Your task to perform on an android device: Open CNN.com Image 0: 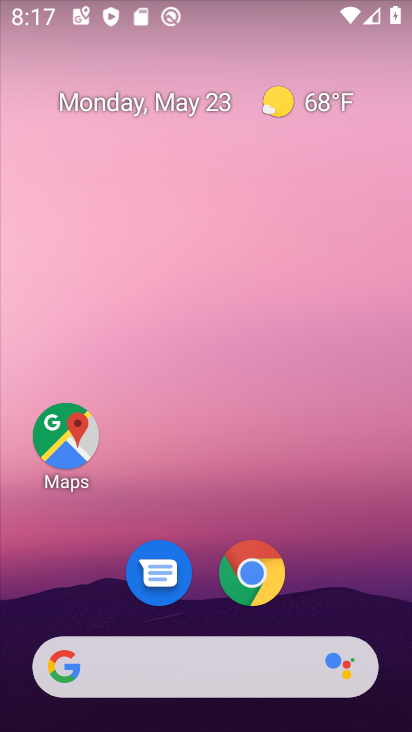
Step 0: drag from (214, 608) to (321, 1)
Your task to perform on an android device: Open CNN.com Image 1: 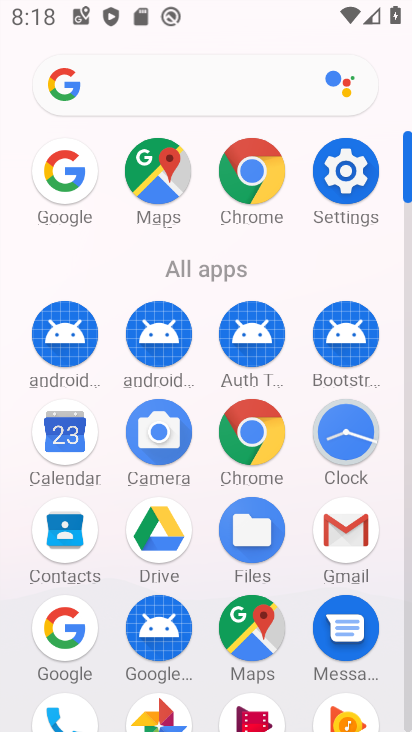
Step 1: click (255, 448)
Your task to perform on an android device: Open CNN.com Image 2: 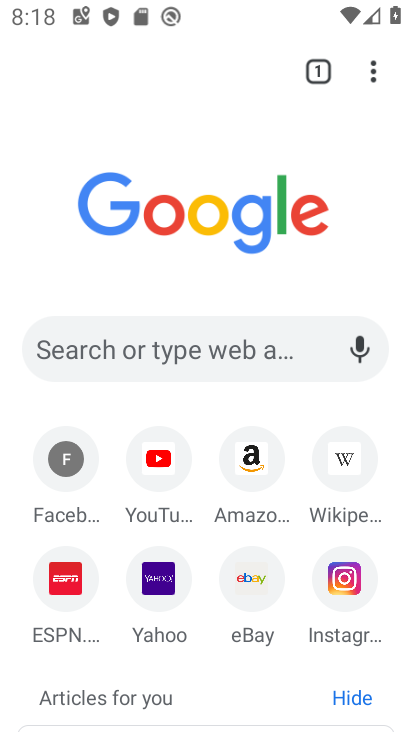
Step 2: click (179, 350)
Your task to perform on an android device: Open CNN.com Image 3: 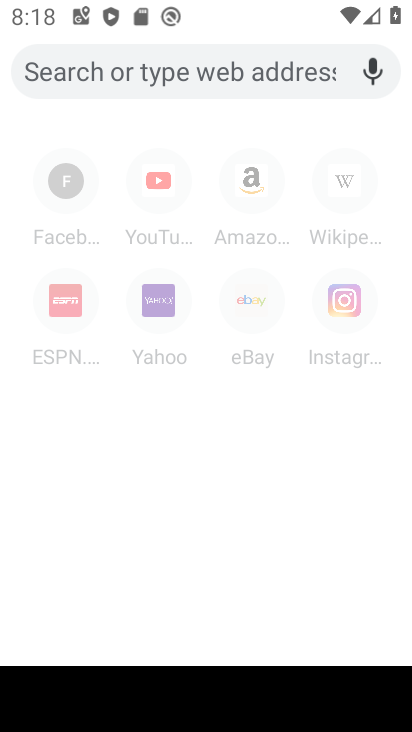
Step 3: type "cnn"
Your task to perform on an android device: Open CNN.com Image 4: 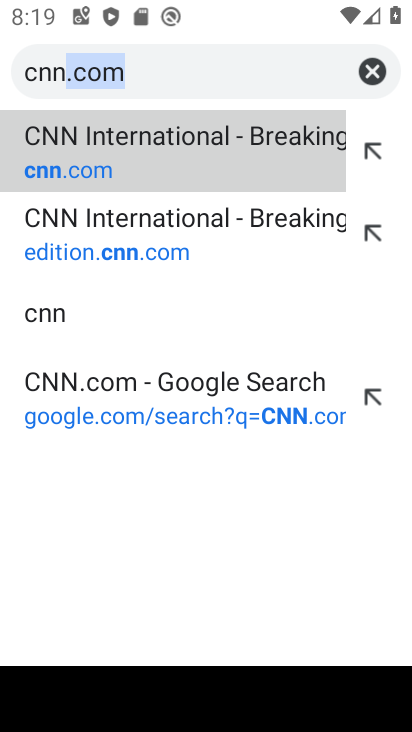
Step 4: click (214, 157)
Your task to perform on an android device: Open CNN.com Image 5: 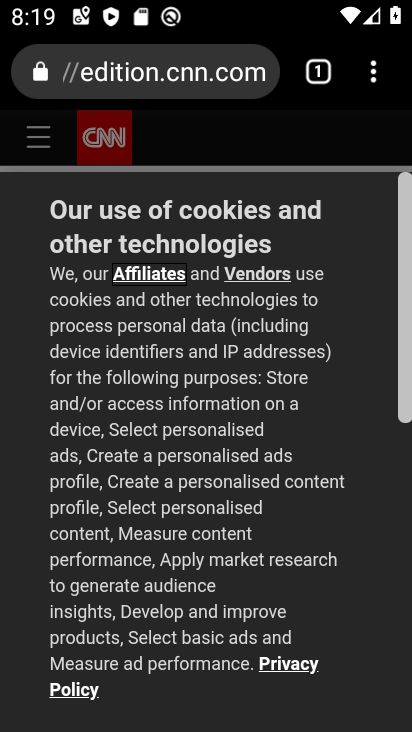
Step 5: task complete